Your task to perform on an android device: Open the phone app and click the voicemail tab. Image 0: 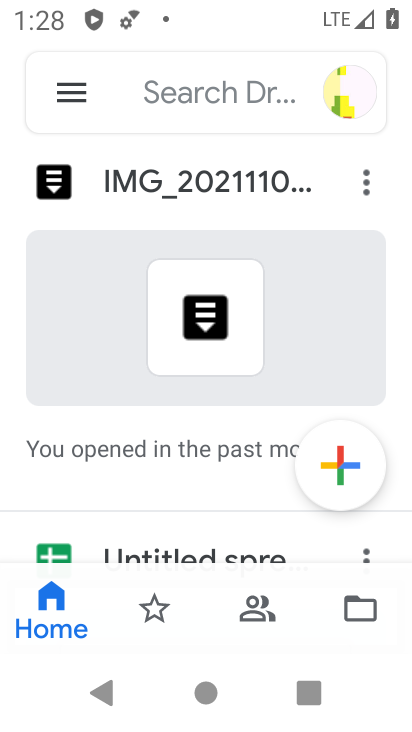
Step 0: press home button
Your task to perform on an android device: Open the phone app and click the voicemail tab. Image 1: 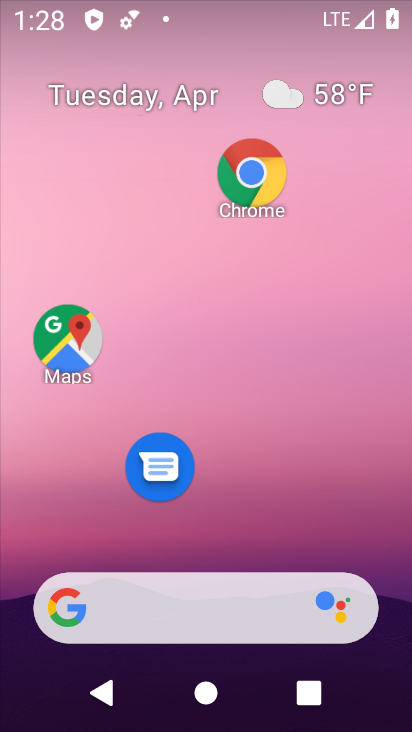
Step 1: drag from (145, 637) to (234, 132)
Your task to perform on an android device: Open the phone app and click the voicemail tab. Image 2: 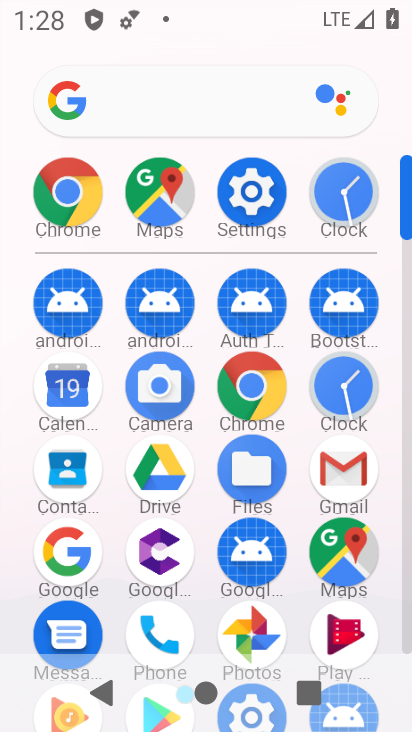
Step 2: drag from (163, 601) to (244, 218)
Your task to perform on an android device: Open the phone app and click the voicemail tab. Image 3: 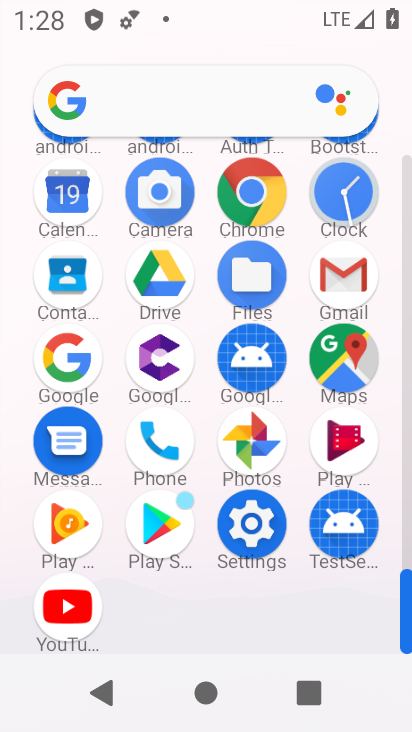
Step 3: click (174, 462)
Your task to perform on an android device: Open the phone app and click the voicemail tab. Image 4: 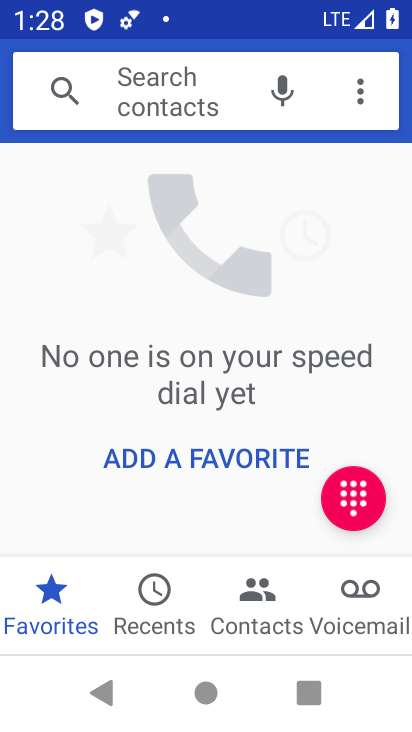
Step 4: click (366, 611)
Your task to perform on an android device: Open the phone app and click the voicemail tab. Image 5: 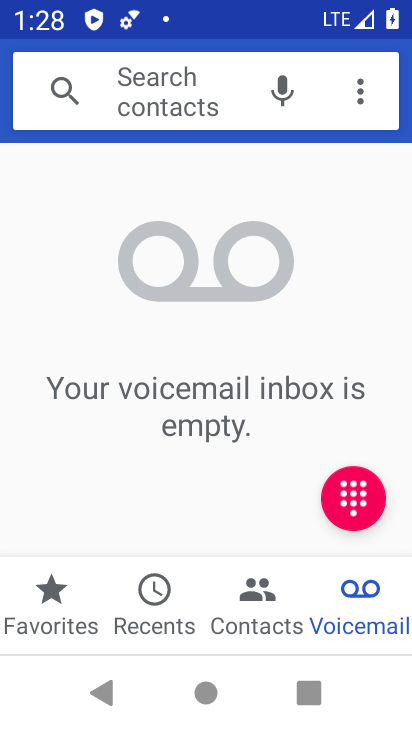
Step 5: task complete